Your task to perform on an android device: turn on javascript in the chrome app Image 0: 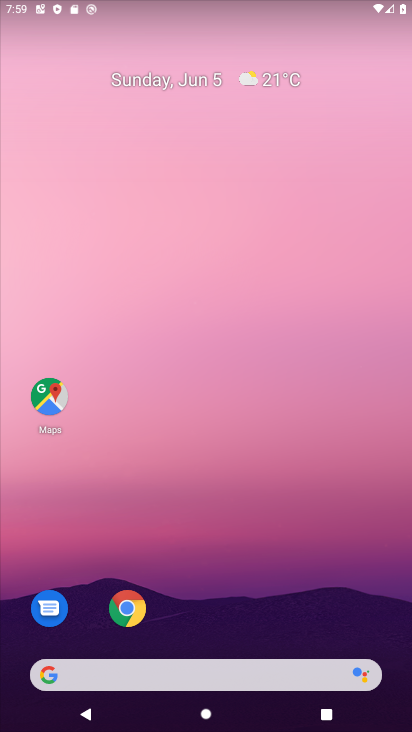
Step 0: drag from (338, 521) to (323, 140)
Your task to perform on an android device: turn on javascript in the chrome app Image 1: 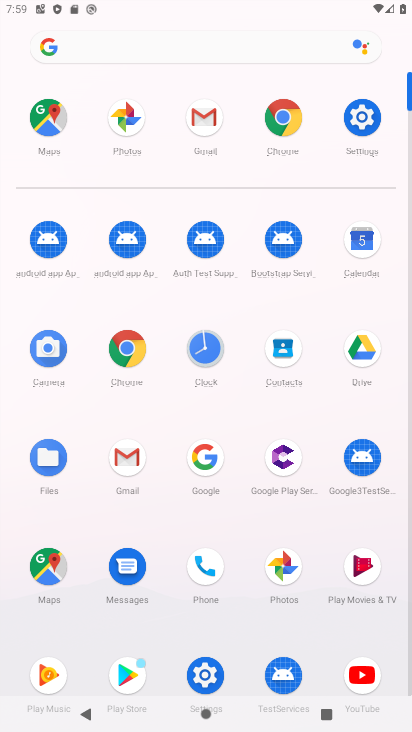
Step 1: click (156, 342)
Your task to perform on an android device: turn on javascript in the chrome app Image 2: 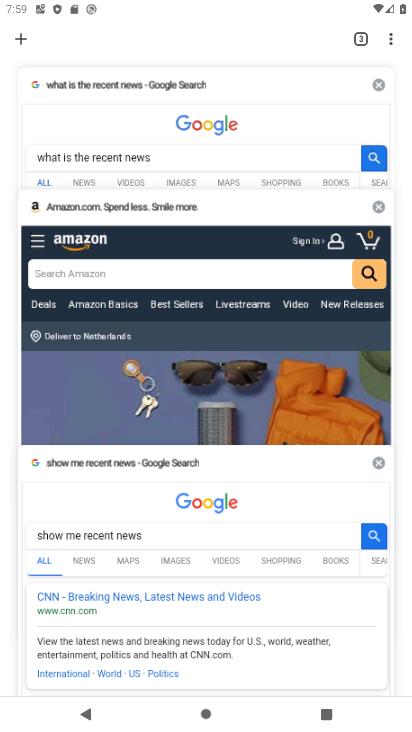
Step 2: drag from (392, 48) to (280, 143)
Your task to perform on an android device: turn on javascript in the chrome app Image 3: 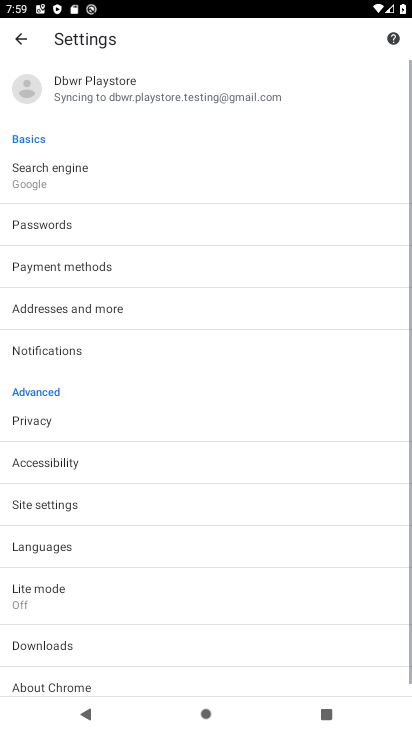
Step 3: click (74, 507)
Your task to perform on an android device: turn on javascript in the chrome app Image 4: 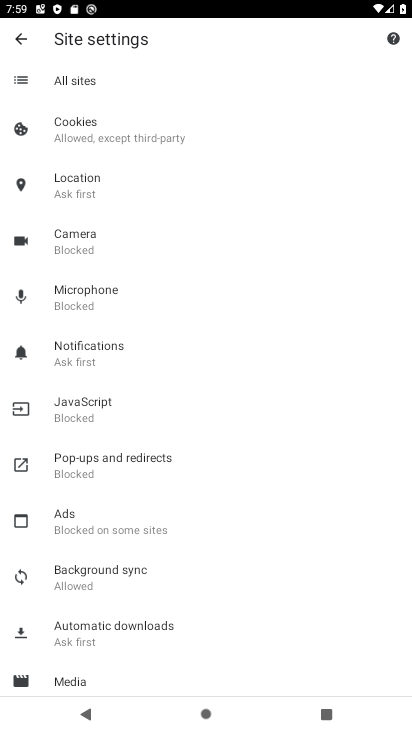
Step 4: click (153, 392)
Your task to perform on an android device: turn on javascript in the chrome app Image 5: 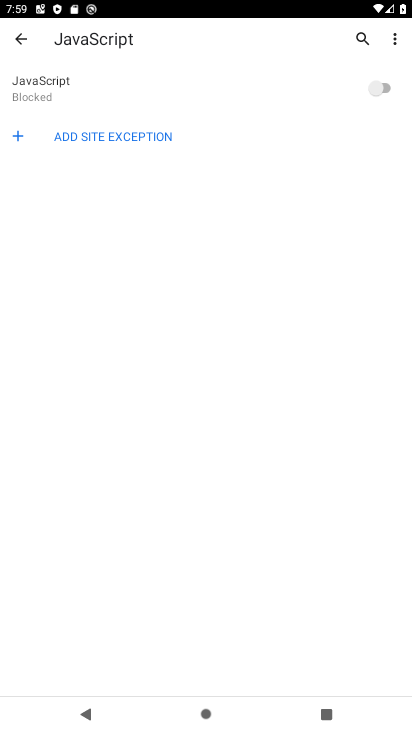
Step 5: click (380, 96)
Your task to perform on an android device: turn on javascript in the chrome app Image 6: 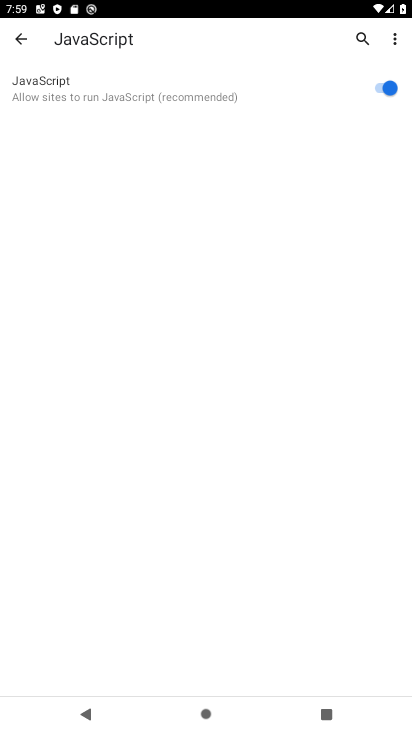
Step 6: task complete